Your task to perform on an android device: change the clock display to show seconds Image 0: 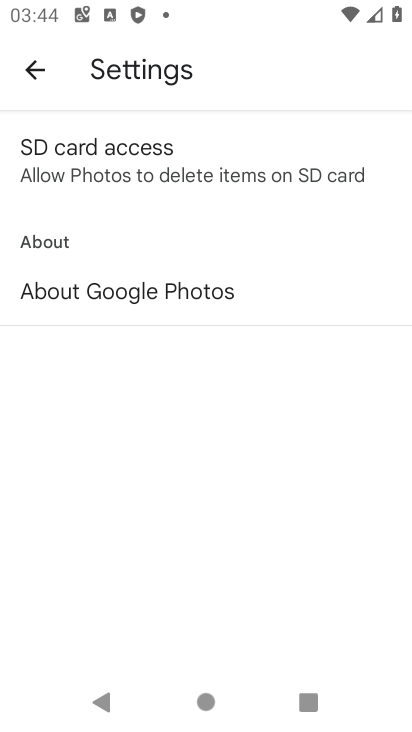
Step 0: press home button
Your task to perform on an android device: change the clock display to show seconds Image 1: 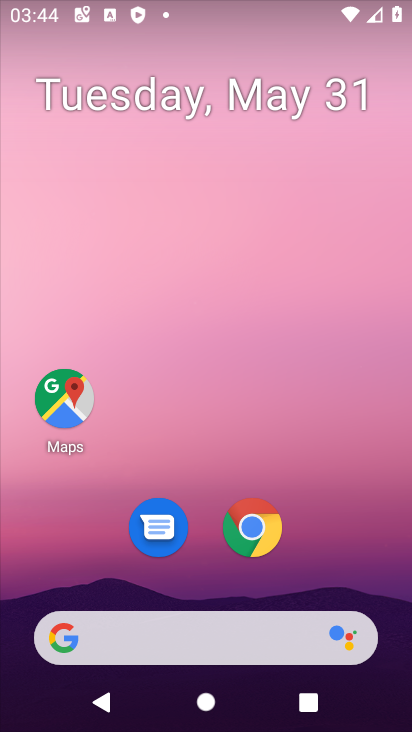
Step 1: drag from (349, 557) to (343, 26)
Your task to perform on an android device: change the clock display to show seconds Image 2: 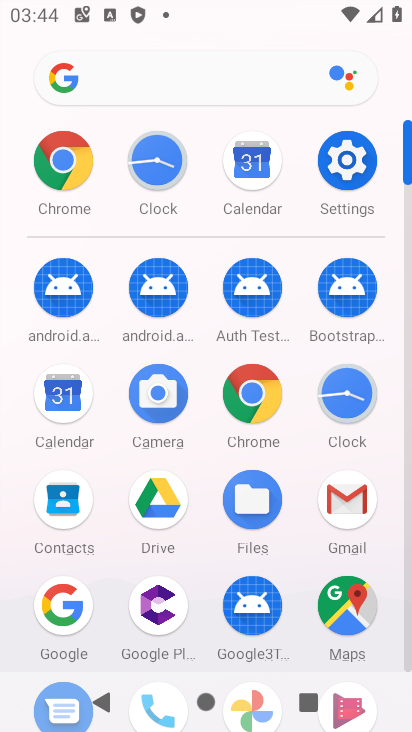
Step 2: click (347, 400)
Your task to perform on an android device: change the clock display to show seconds Image 3: 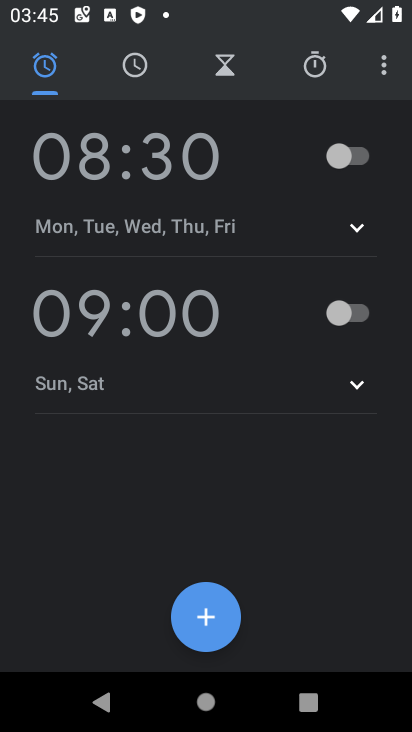
Step 3: click (378, 70)
Your task to perform on an android device: change the clock display to show seconds Image 4: 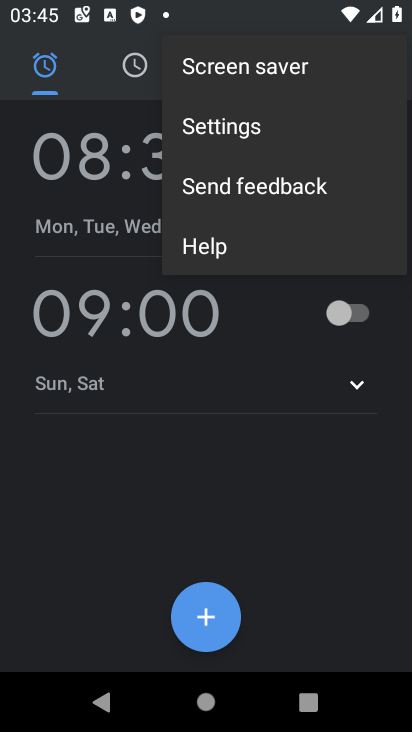
Step 4: click (191, 123)
Your task to perform on an android device: change the clock display to show seconds Image 5: 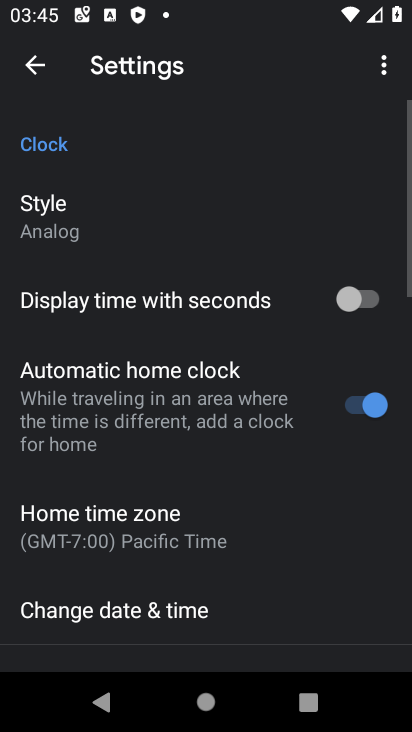
Step 5: click (371, 304)
Your task to perform on an android device: change the clock display to show seconds Image 6: 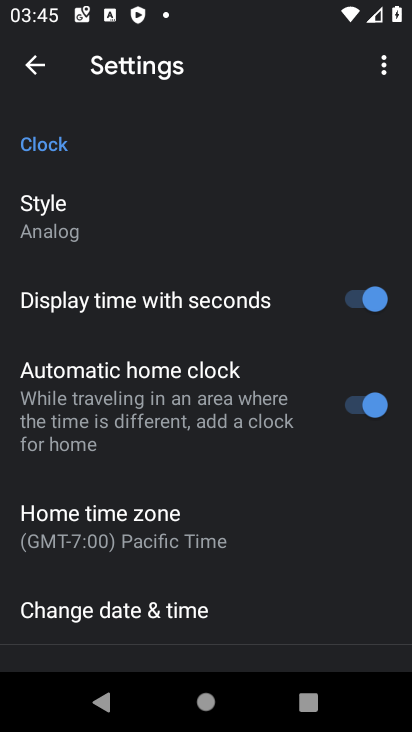
Step 6: task complete